Your task to perform on an android device: delete the emails in spam in the gmail app Image 0: 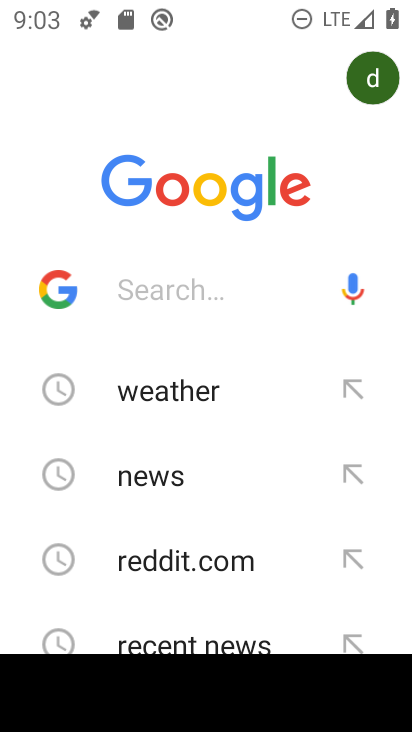
Step 0: press home button
Your task to perform on an android device: delete the emails in spam in the gmail app Image 1: 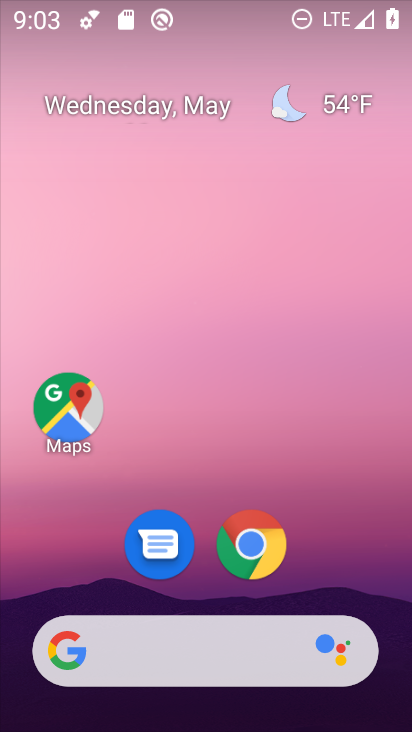
Step 1: drag from (220, 582) to (228, 121)
Your task to perform on an android device: delete the emails in spam in the gmail app Image 2: 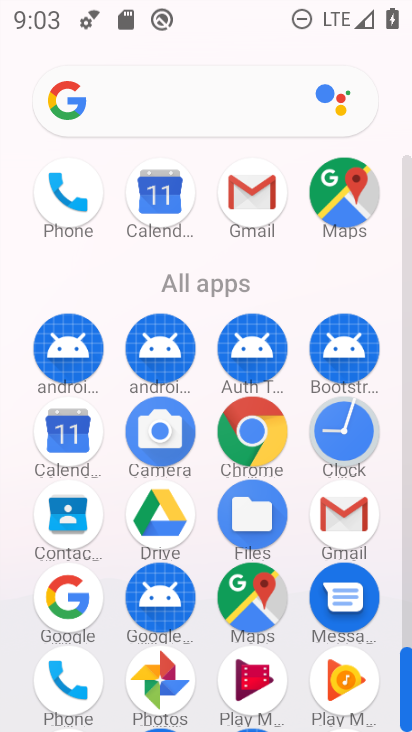
Step 2: click (248, 204)
Your task to perform on an android device: delete the emails in spam in the gmail app Image 3: 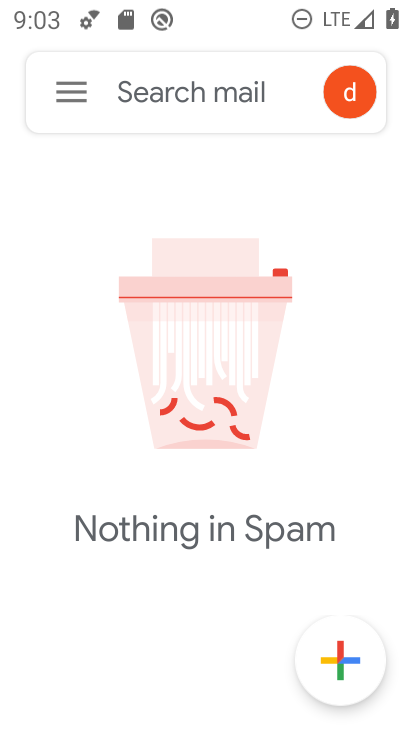
Step 3: click (98, 115)
Your task to perform on an android device: delete the emails in spam in the gmail app Image 4: 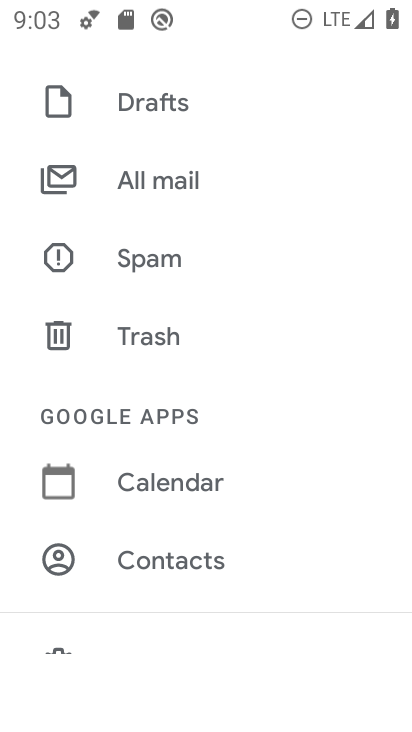
Step 4: task complete